Your task to perform on an android device: When is my next appointment? Image 0: 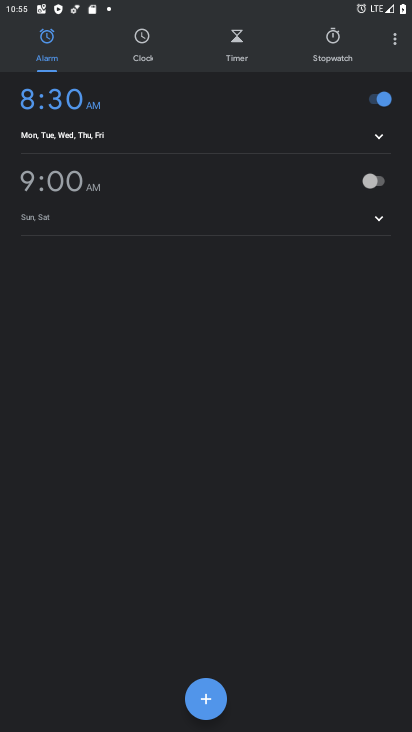
Step 0: press home button
Your task to perform on an android device: When is my next appointment? Image 1: 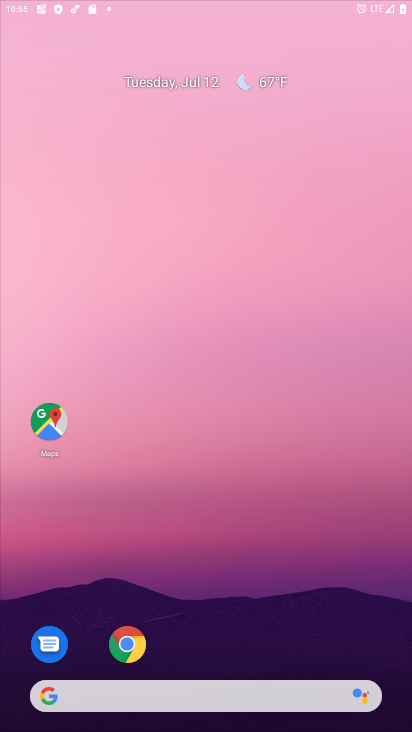
Step 1: drag from (156, 643) to (240, 85)
Your task to perform on an android device: When is my next appointment? Image 2: 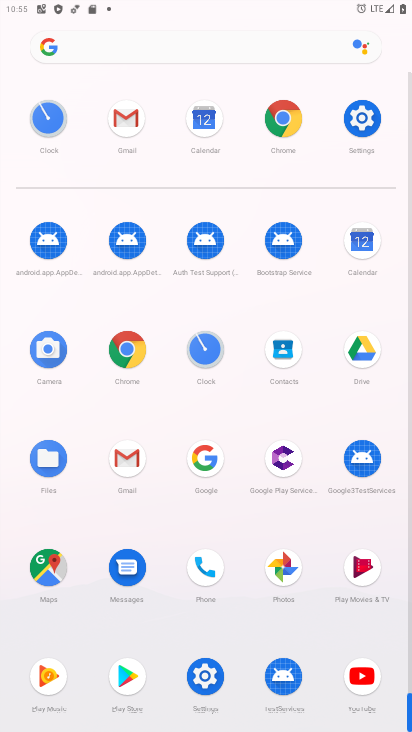
Step 2: click (364, 246)
Your task to perform on an android device: When is my next appointment? Image 3: 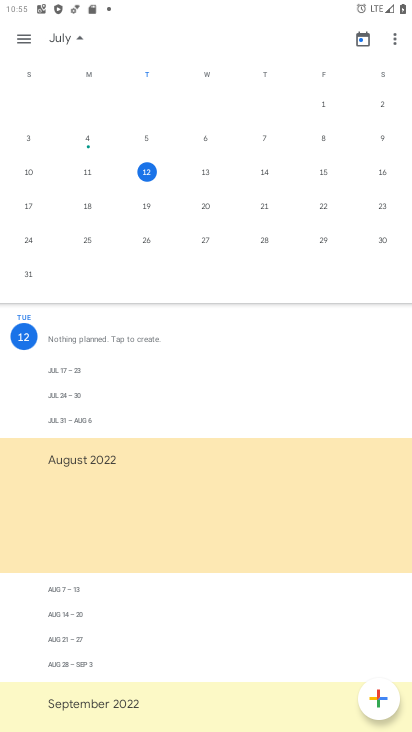
Step 3: click (72, 36)
Your task to perform on an android device: When is my next appointment? Image 4: 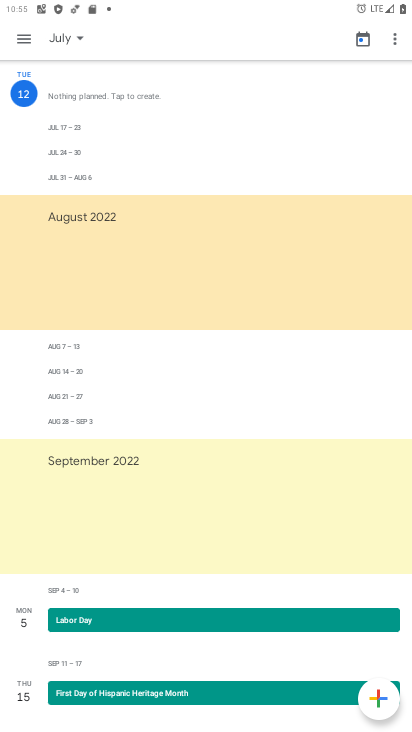
Step 4: click (64, 28)
Your task to perform on an android device: When is my next appointment? Image 5: 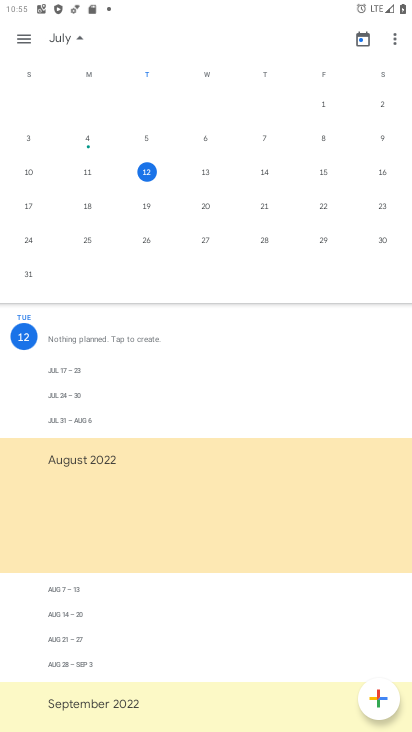
Step 5: task complete